Your task to perform on an android device: Search for sushi restaurants on Maps Image 0: 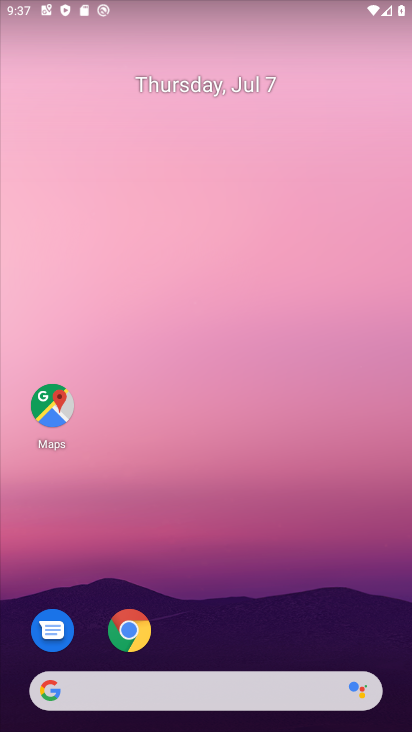
Step 0: click (52, 419)
Your task to perform on an android device: Search for sushi restaurants on Maps Image 1: 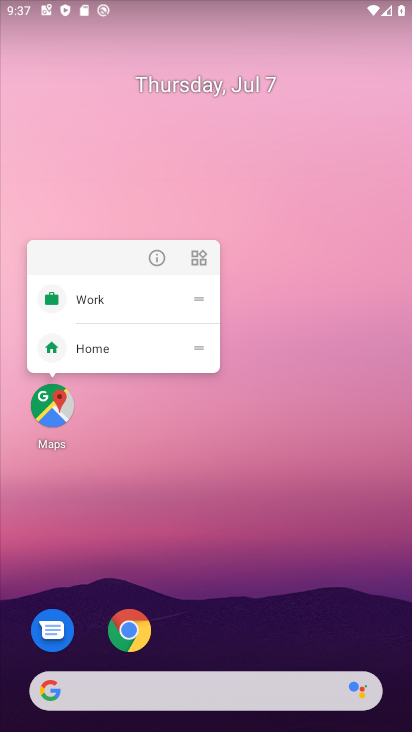
Step 1: click (56, 415)
Your task to perform on an android device: Search for sushi restaurants on Maps Image 2: 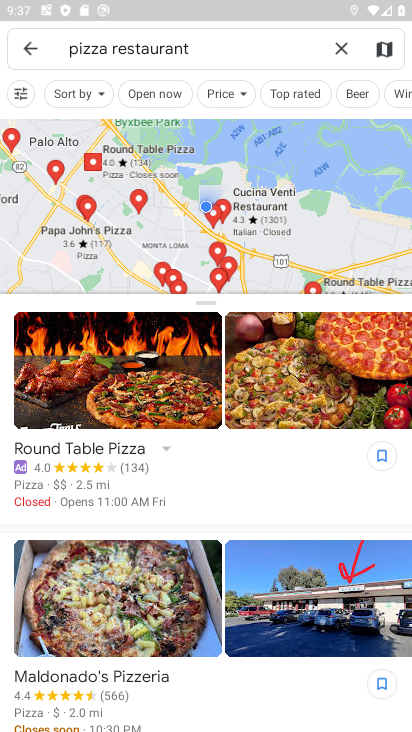
Step 2: click (339, 45)
Your task to perform on an android device: Search for sushi restaurants on Maps Image 3: 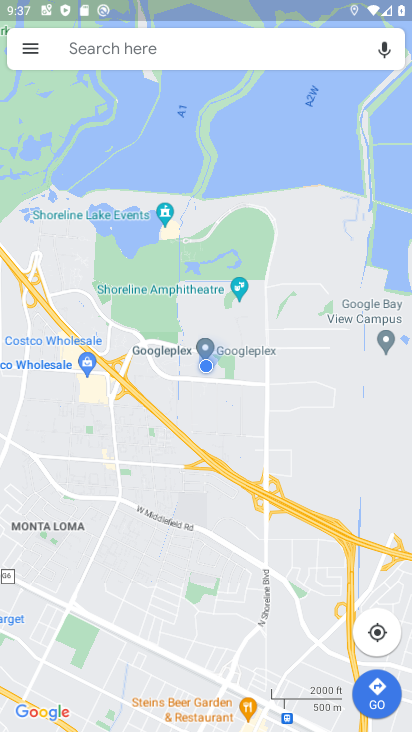
Step 3: click (276, 56)
Your task to perform on an android device: Search for sushi restaurants on Maps Image 4: 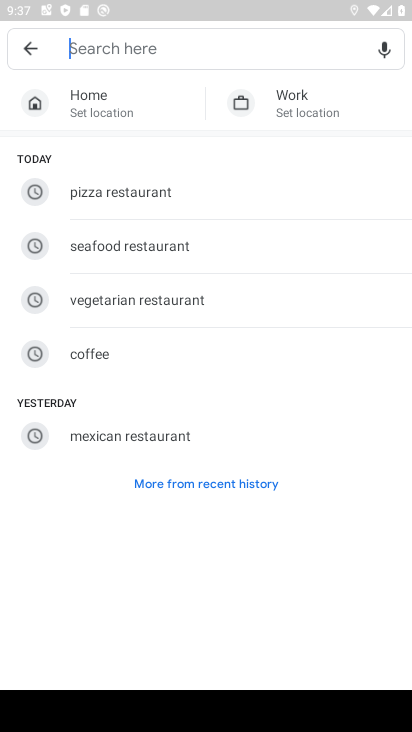
Step 4: click (159, 484)
Your task to perform on an android device: Search for sushi restaurants on Maps Image 5: 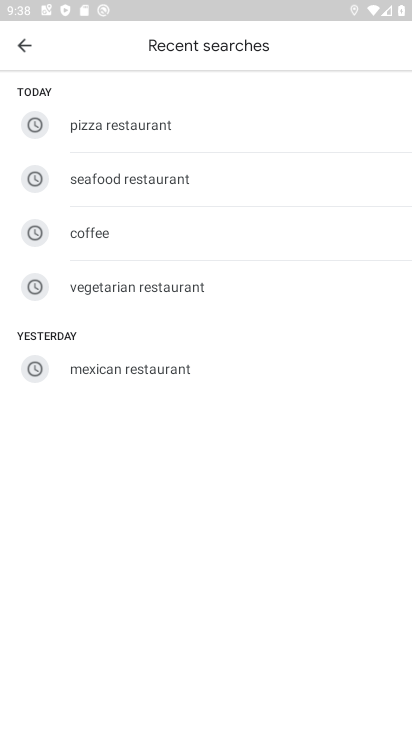
Step 5: click (24, 45)
Your task to perform on an android device: Search for sushi restaurants on Maps Image 6: 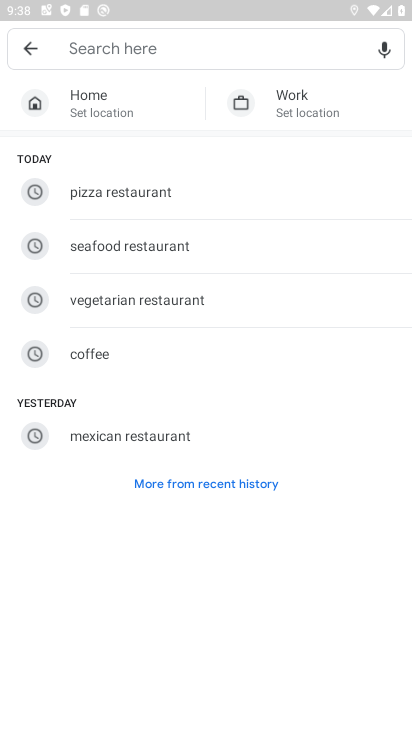
Step 6: click (125, 51)
Your task to perform on an android device: Search for sushi restaurants on Maps Image 7: 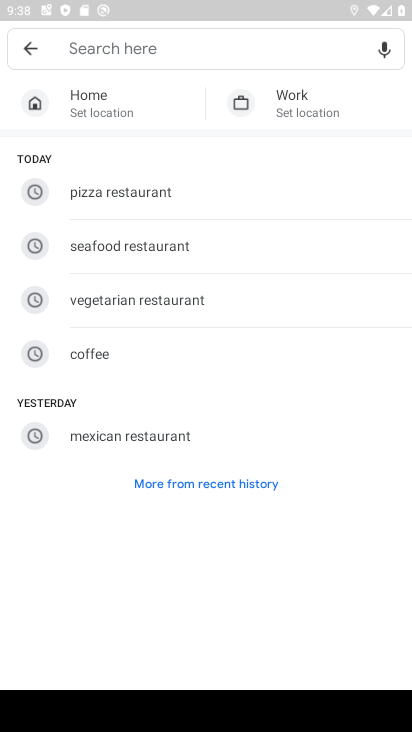
Step 7: type "sushi restaurants"
Your task to perform on an android device: Search for sushi restaurants on Maps Image 8: 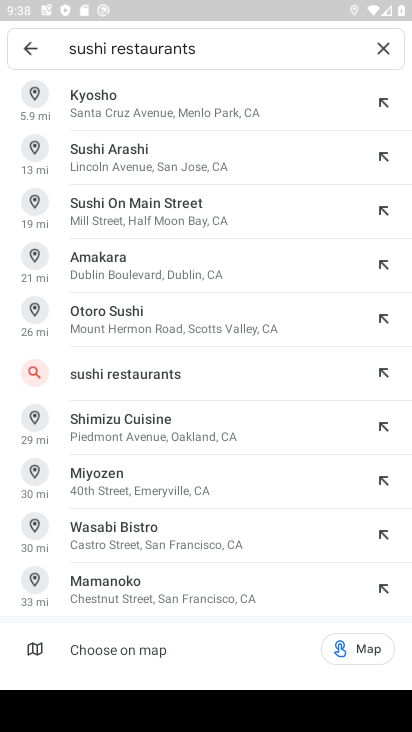
Step 8: click (142, 379)
Your task to perform on an android device: Search for sushi restaurants on Maps Image 9: 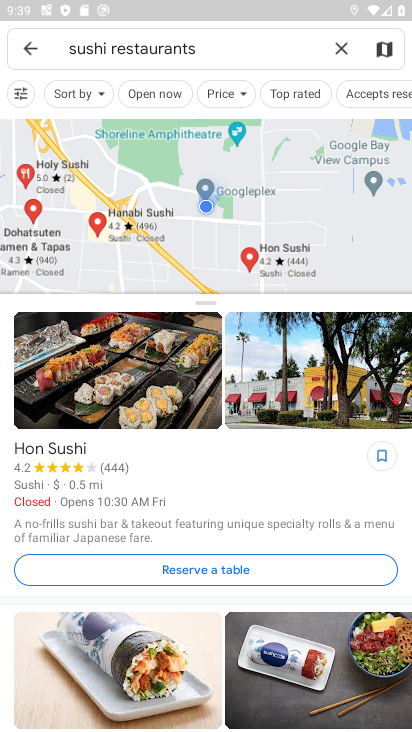
Step 9: task complete